Your task to perform on an android device: check storage Image 0: 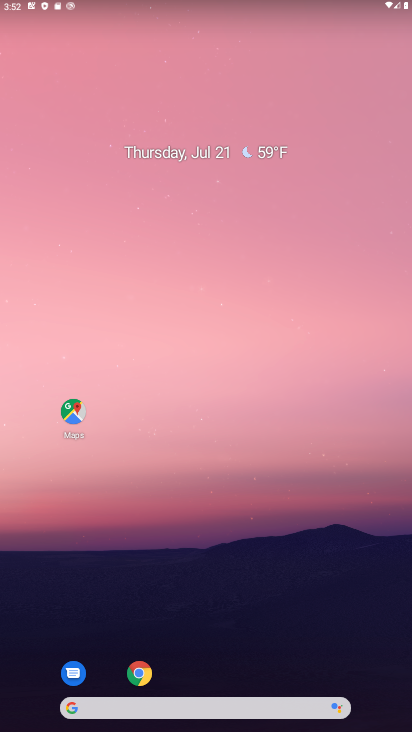
Step 0: drag from (363, 680) to (279, 143)
Your task to perform on an android device: check storage Image 1: 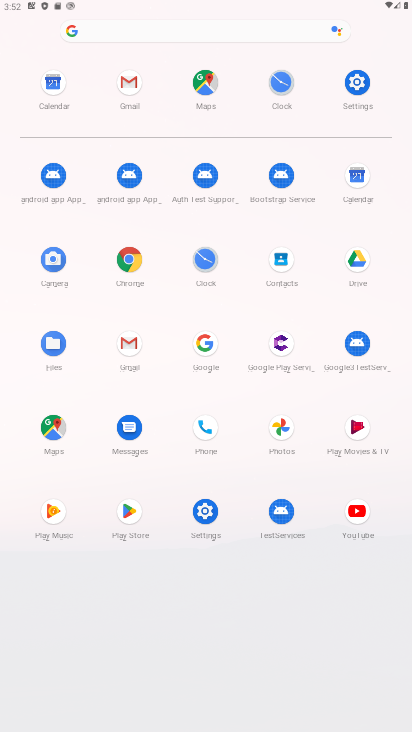
Step 1: click (204, 511)
Your task to perform on an android device: check storage Image 2: 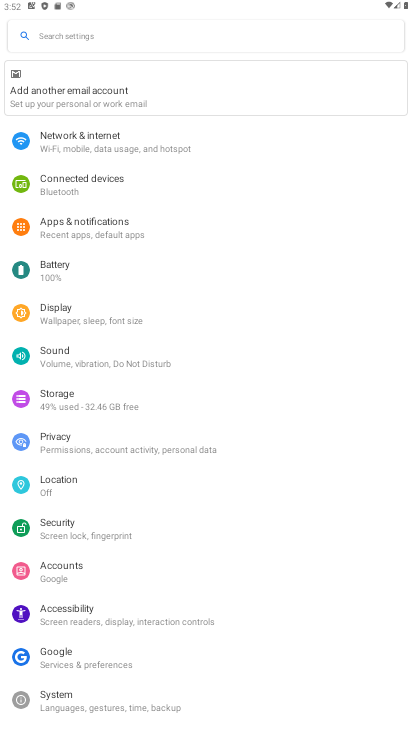
Step 2: click (63, 397)
Your task to perform on an android device: check storage Image 3: 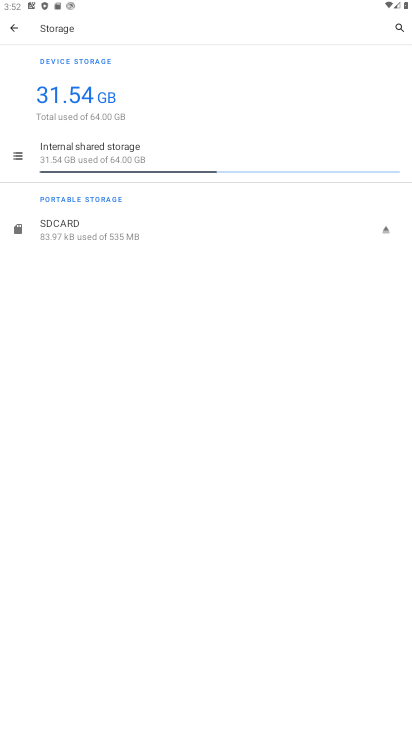
Step 3: task complete